Your task to perform on an android device: visit the assistant section in the google photos Image 0: 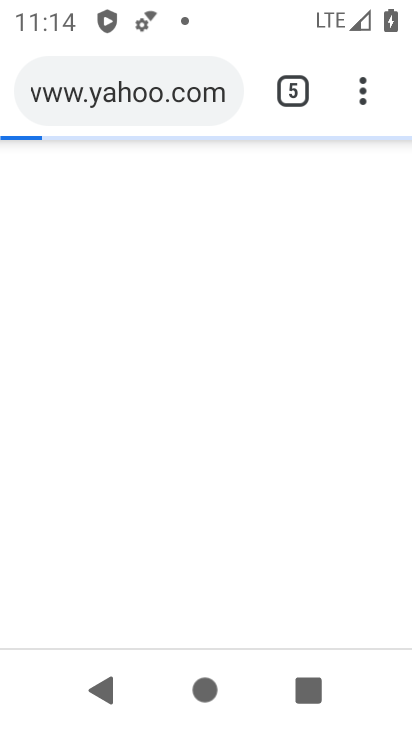
Step 0: press home button
Your task to perform on an android device: visit the assistant section in the google photos Image 1: 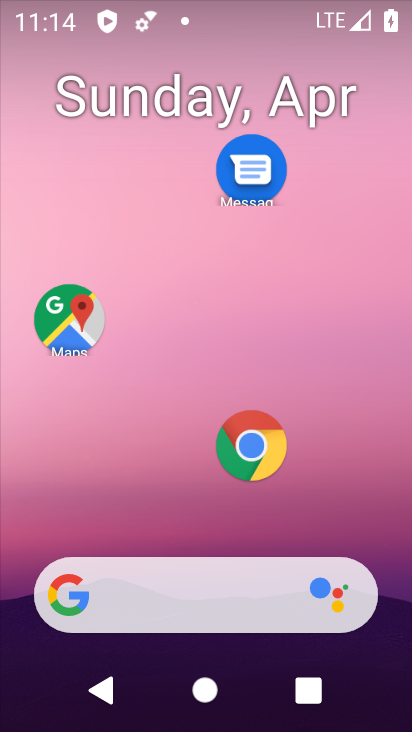
Step 1: drag from (188, 590) to (322, 137)
Your task to perform on an android device: visit the assistant section in the google photos Image 2: 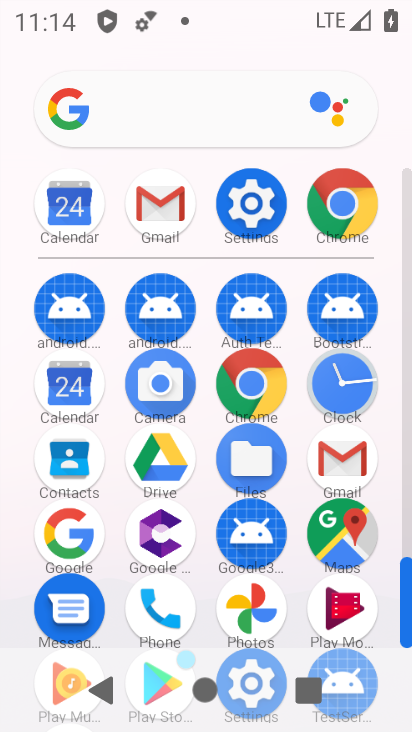
Step 2: click (253, 601)
Your task to perform on an android device: visit the assistant section in the google photos Image 3: 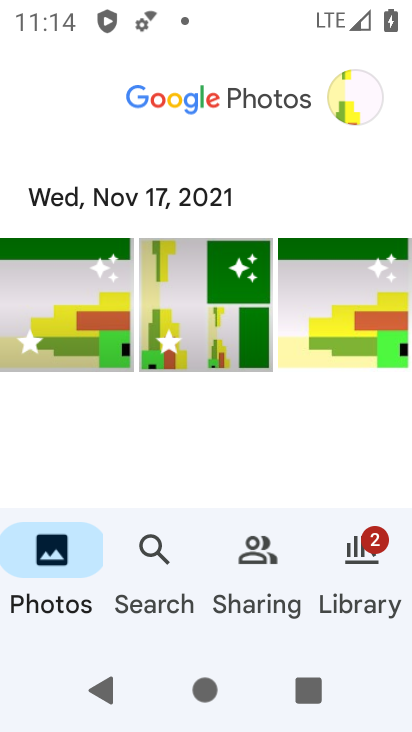
Step 3: click (354, 611)
Your task to perform on an android device: visit the assistant section in the google photos Image 4: 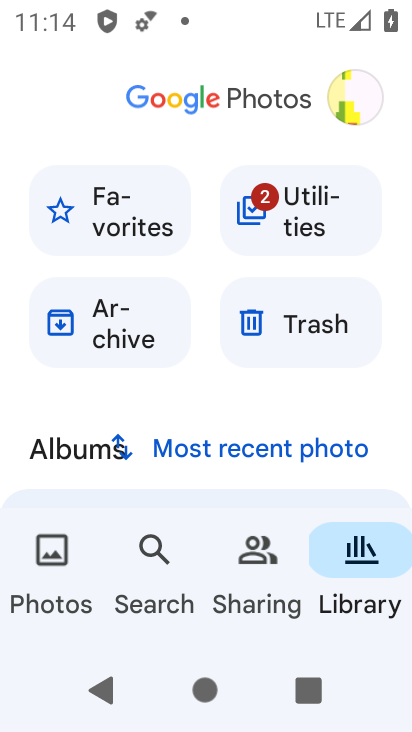
Step 4: click (361, 100)
Your task to perform on an android device: visit the assistant section in the google photos Image 5: 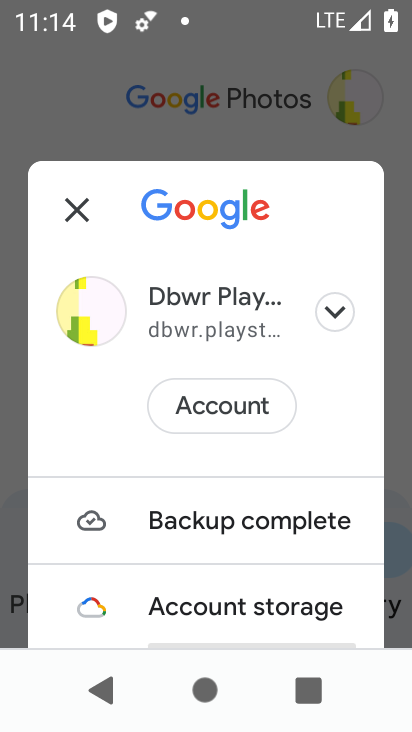
Step 5: task complete